Your task to perform on an android device: change notifications settings Image 0: 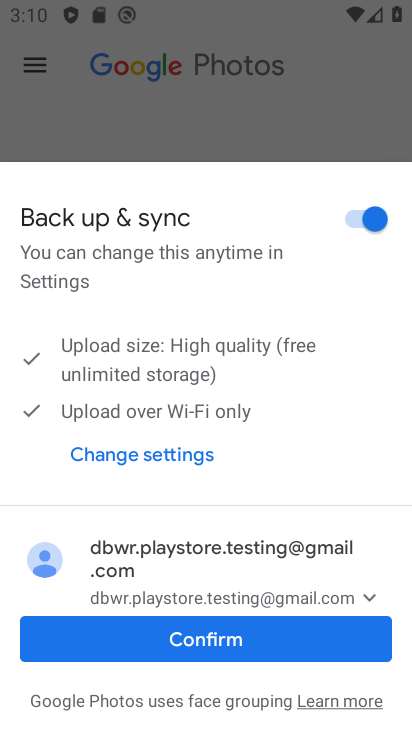
Step 0: press back button
Your task to perform on an android device: change notifications settings Image 1: 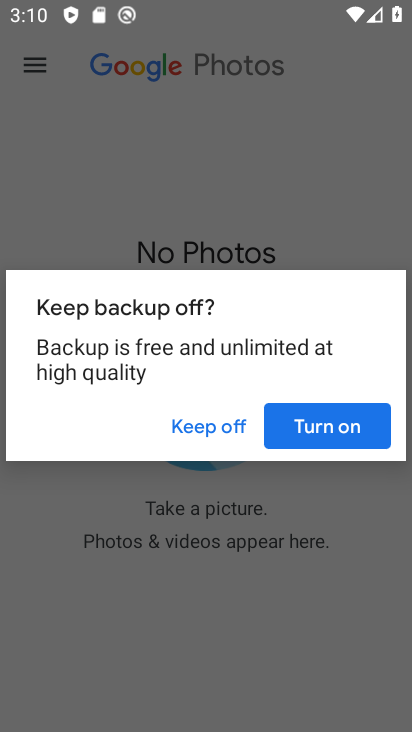
Step 1: press back button
Your task to perform on an android device: change notifications settings Image 2: 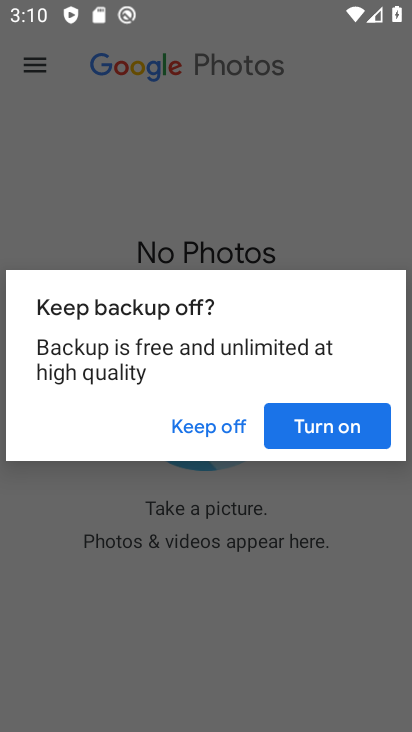
Step 2: press home button
Your task to perform on an android device: change notifications settings Image 3: 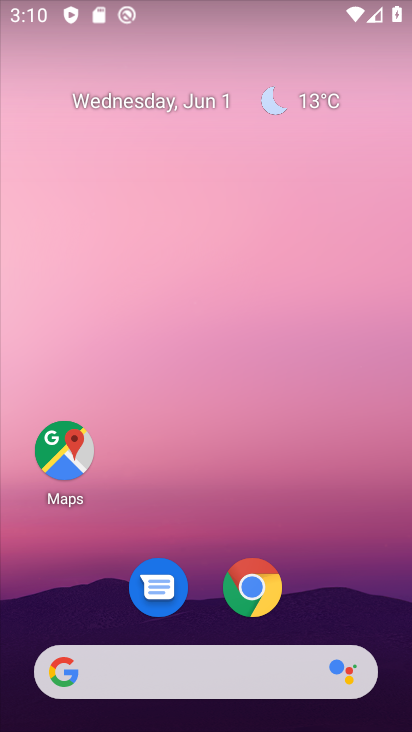
Step 3: drag from (358, 597) to (154, 5)
Your task to perform on an android device: change notifications settings Image 4: 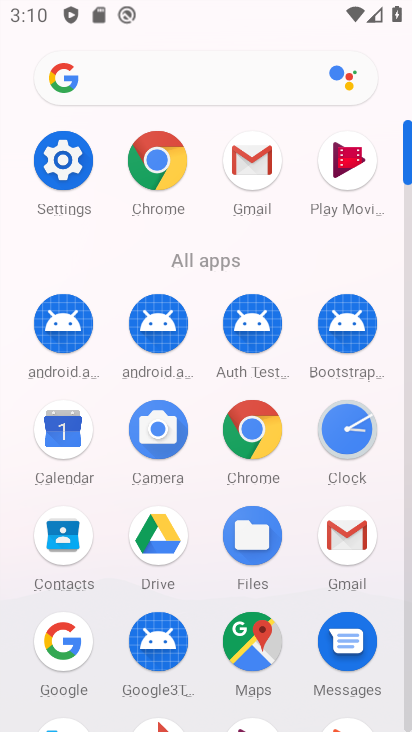
Step 4: click (60, 156)
Your task to perform on an android device: change notifications settings Image 5: 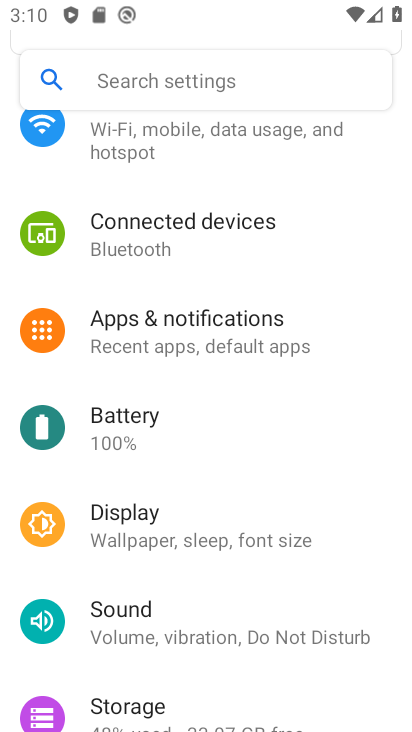
Step 5: drag from (326, 592) to (308, 221)
Your task to perform on an android device: change notifications settings Image 6: 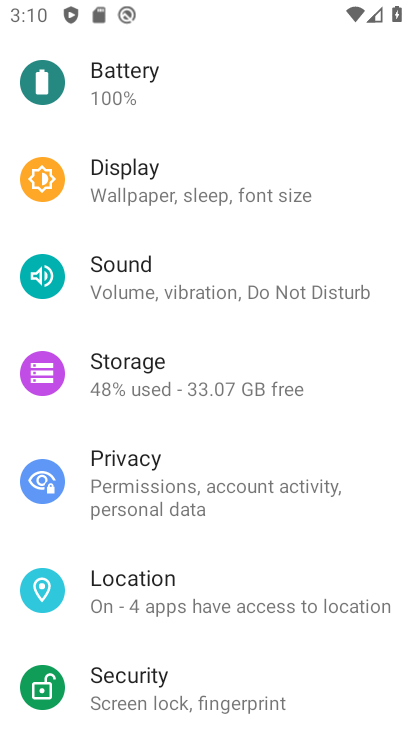
Step 6: drag from (272, 154) to (268, 540)
Your task to perform on an android device: change notifications settings Image 7: 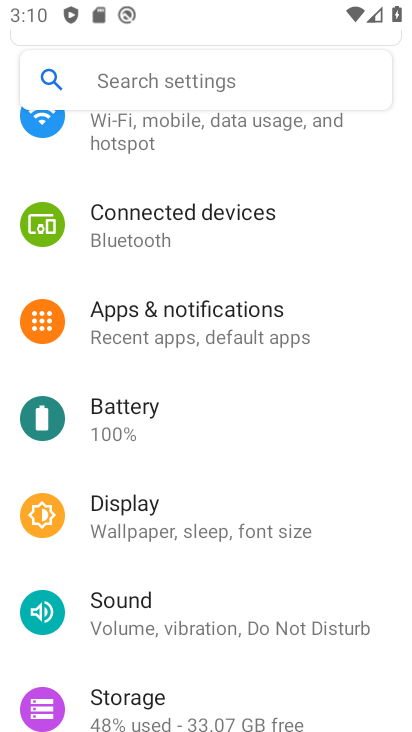
Step 7: click (235, 316)
Your task to perform on an android device: change notifications settings Image 8: 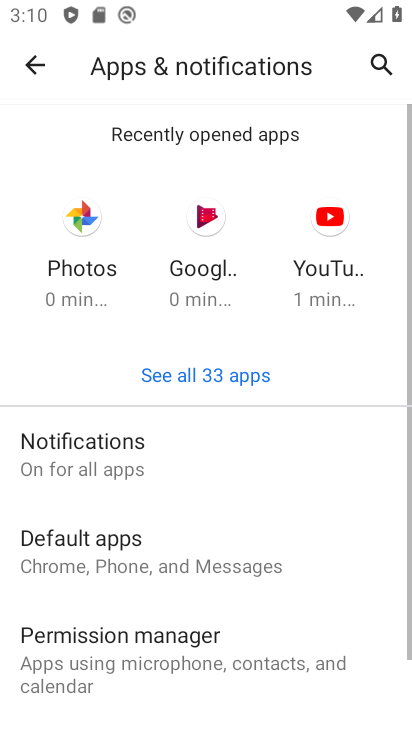
Step 8: drag from (296, 558) to (280, 171)
Your task to perform on an android device: change notifications settings Image 9: 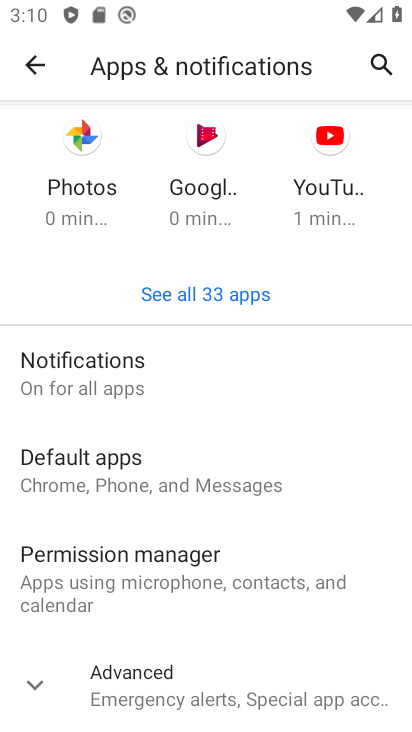
Step 9: click (57, 670)
Your task to perform on an android device: change notifications settings Image 10: 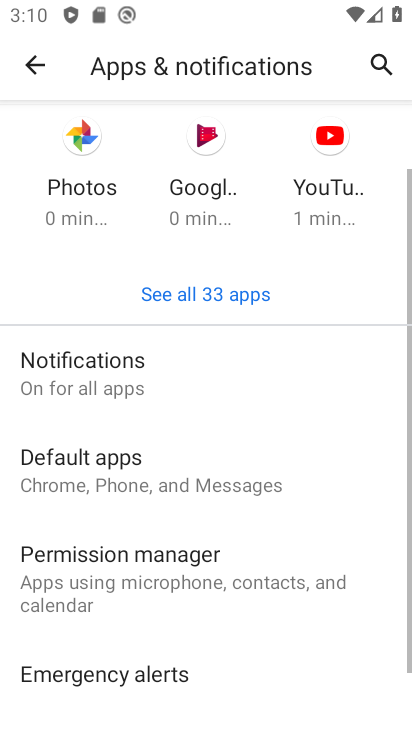
Step 10: drag from (309, 657) to (338, 282)
Your task to perform on an android device: change notifications settings Image 11: 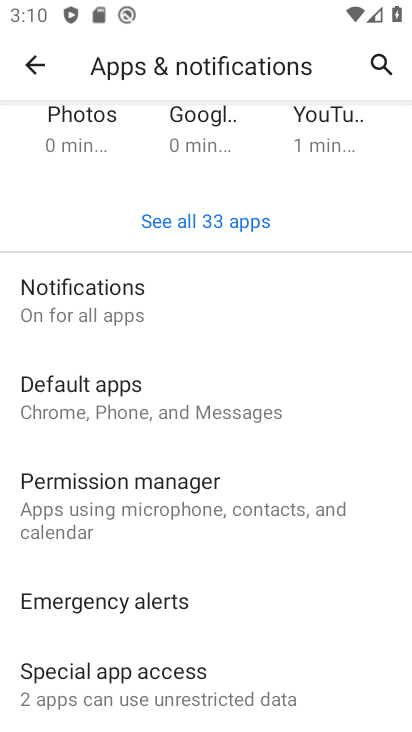
Step 11: click (133, 266)
Your task to perform on an android device: change notifications settings Image 12: 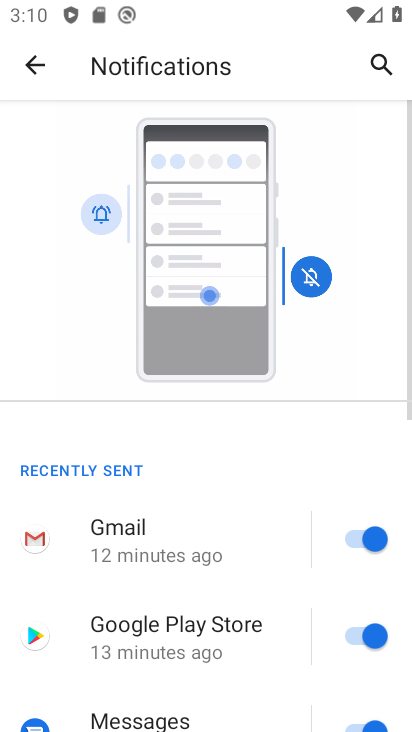
Step 12: drag from (235, 584) to (263, 188)
Your task to perform on an android device: change notifications settings Image 13: 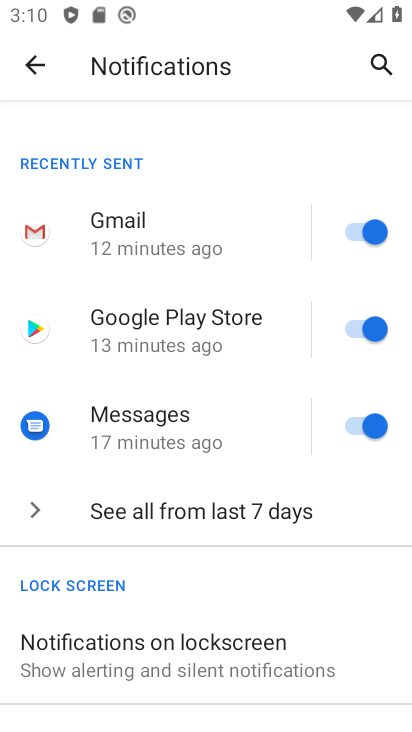
Step 13: drag from (277, 603) to (267, 152)
Your task to perform on an android device: change notifications settings Image 14: 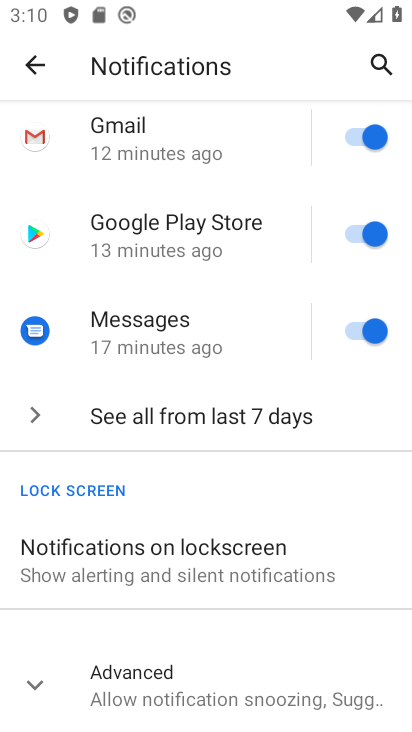
Step 14: click (45, 658)
Your task to perform on an android device: change notifications settings Image 15: 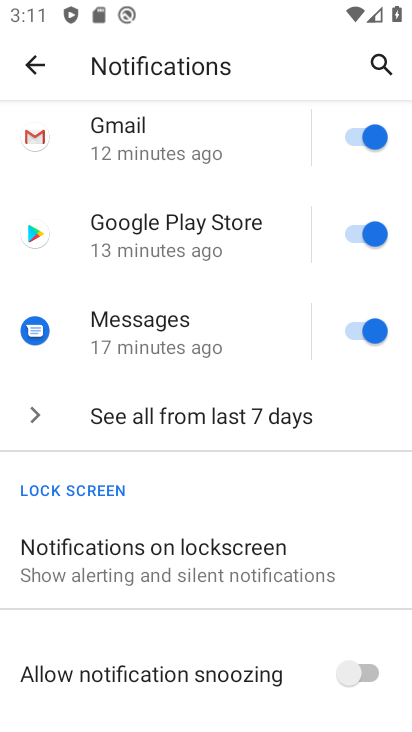
Step 15: task complete